Your task to perform on an android device: set the timer Image 0: 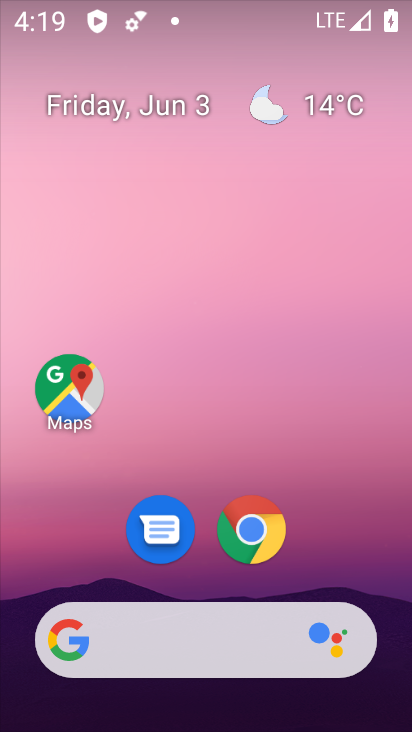
Step 0: drag from (353, 537) to (333, 47)
Your task to perform on an android device: set the timer Image 1: 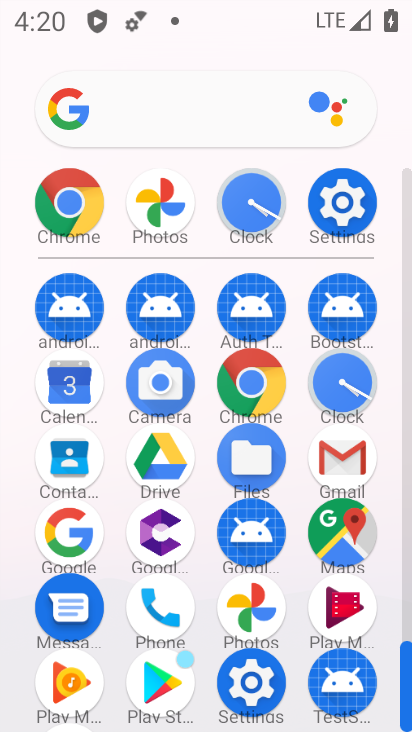
Step 1: click (342, 397)
Your task to perform on an android device: set the timer Image 2: 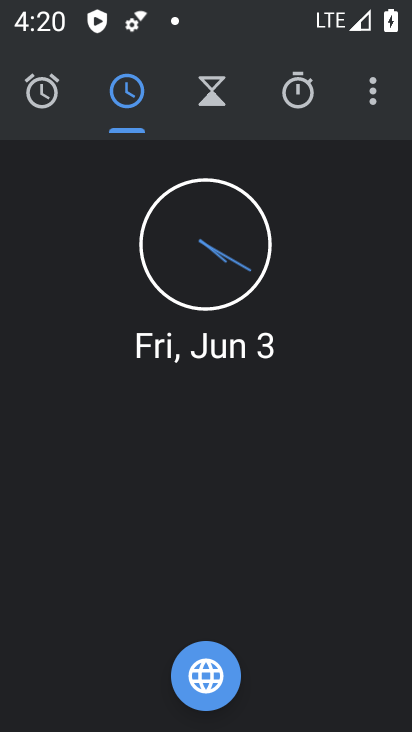
Step 2: click (198, 103)
Your task to perform on an android device: set the timer Image 3: 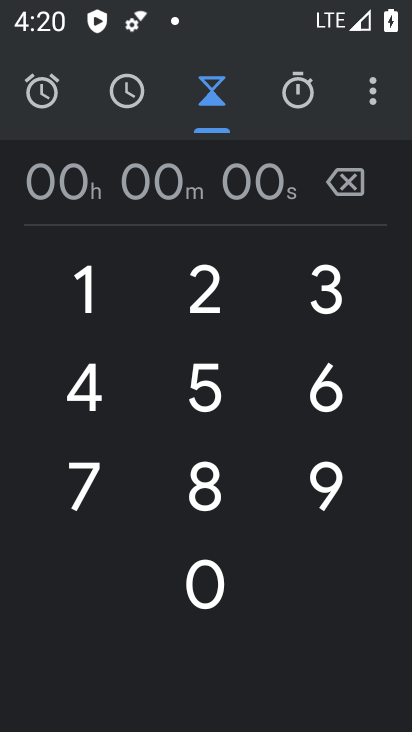
Step 3: click (187, 333)
Your task to perform on an android device: set the timer Image 4: 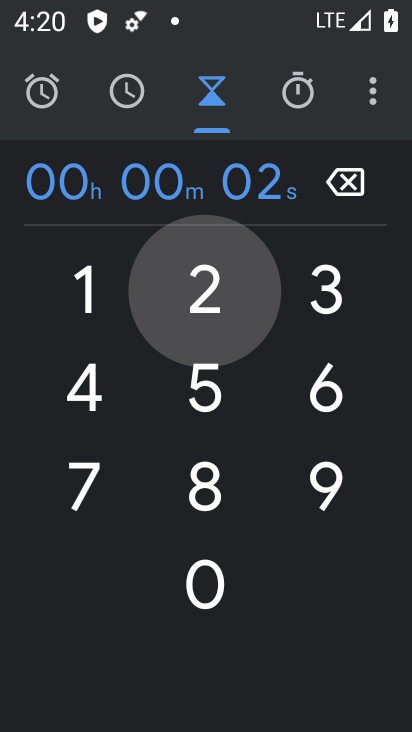
Step 4: click (208, 393)
Your task to perform on an android device: set the timer Image 5: 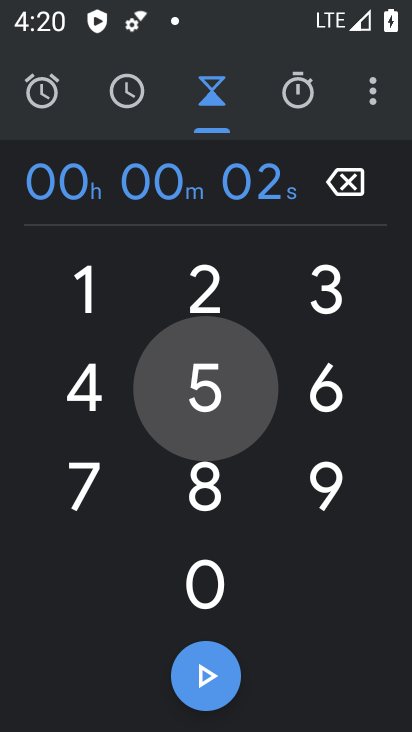
Step 5: click (214, 321)
Your task to perform on an android device: set the timer Image 6: 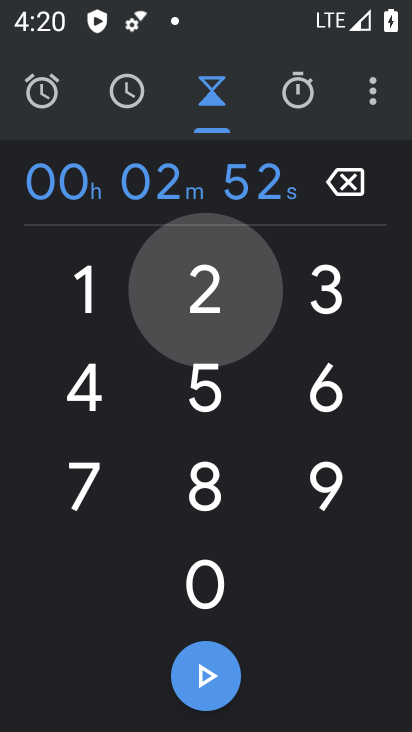
Step 6: click (219, 402)
Your task to perform on an android device: set the timer Image 7: 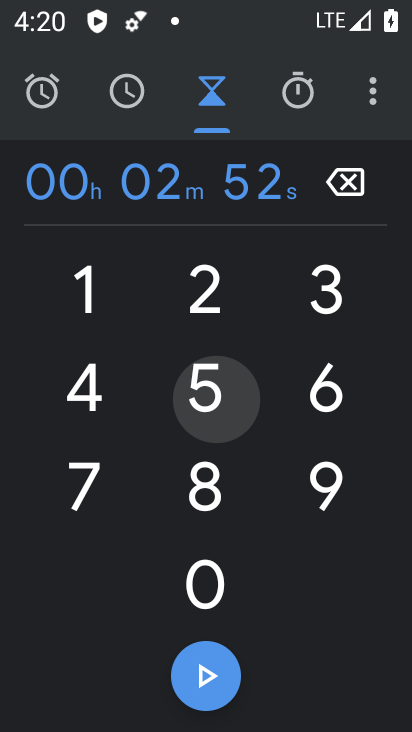
Step 7: click (239, 296)
Your task to perform on an android device: set the timer Image 8: 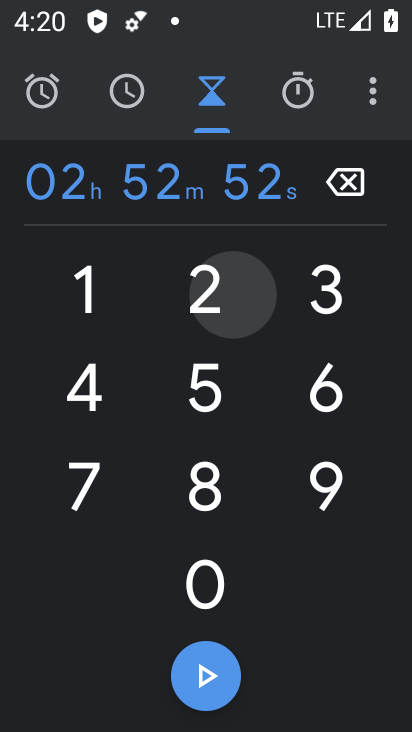
Step 8: click (230, 393)
Your task to perform on an android device: set the timer Image 9: 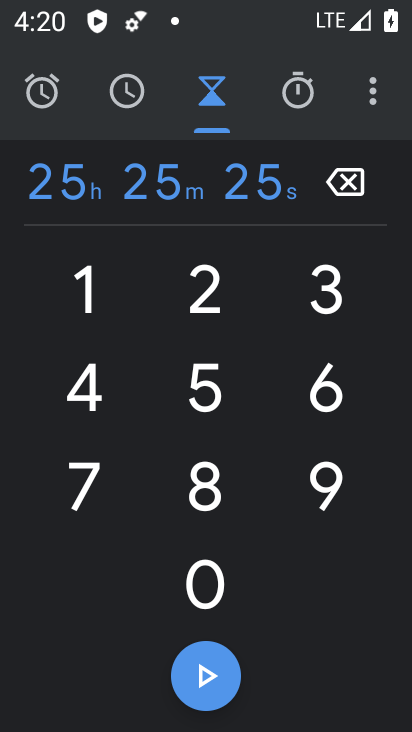
Step 9: click (208, 687)
Your task to perform on an android device: set the timer Image 10: 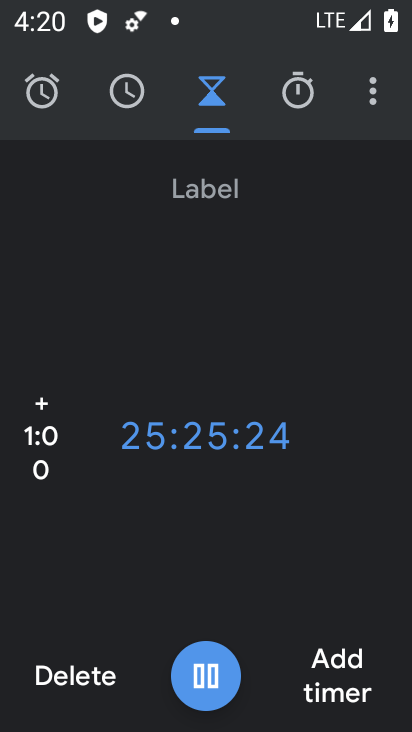
Step 10: task complete